Your task to perform on an android device: toggle javascript in the chrome app Image 0: 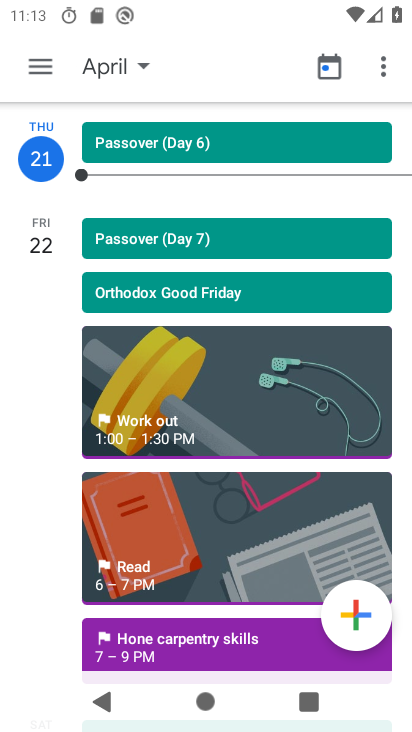
Step 0: press home button
Your task to perform on an android device: toggle javascript in the chrome app Image 1: 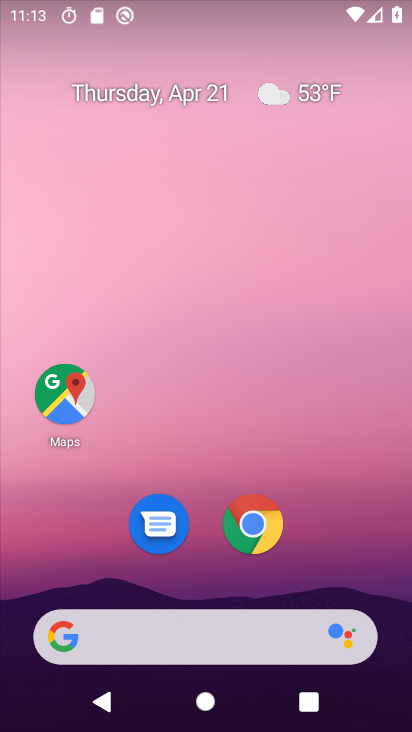
Step 1: click (256, 527)
Your task to perform on an android device: toggle javascript in the chrome app Image 2: 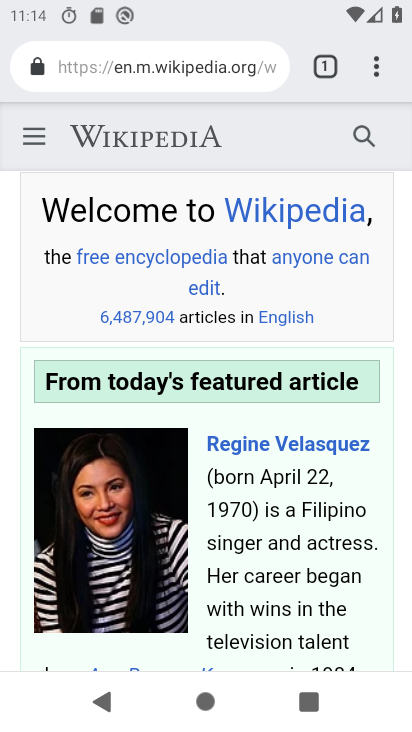
Step 2: drag from (376, 61) to (268, 520)
Your task to perform on an android device: toggle javascript in the chrome app Image 3: 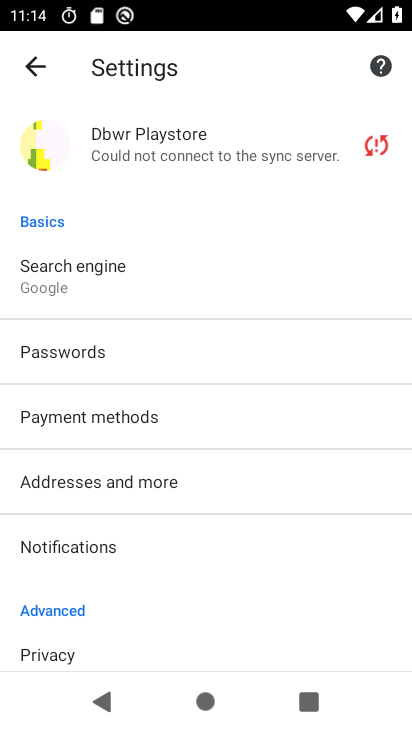
Step 3: drag from (250, 592) to (263, 258)
Your task to perform on an android device: toggle javascript in the chrome app Image 4: 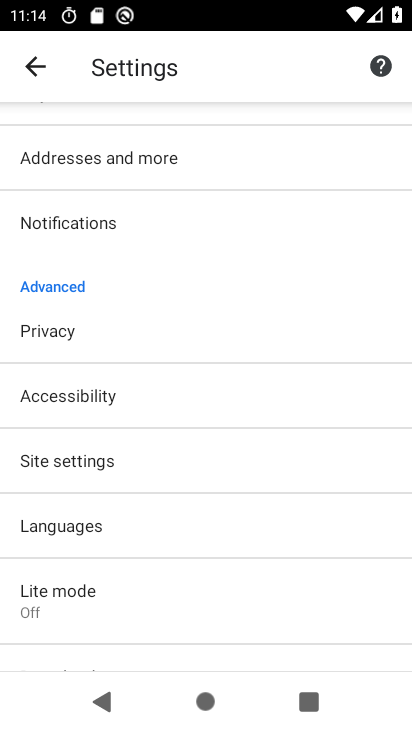
Step 4: click (241, 463)
Your task to perform on an android device: toggle javascript in the chrome app Image 5: 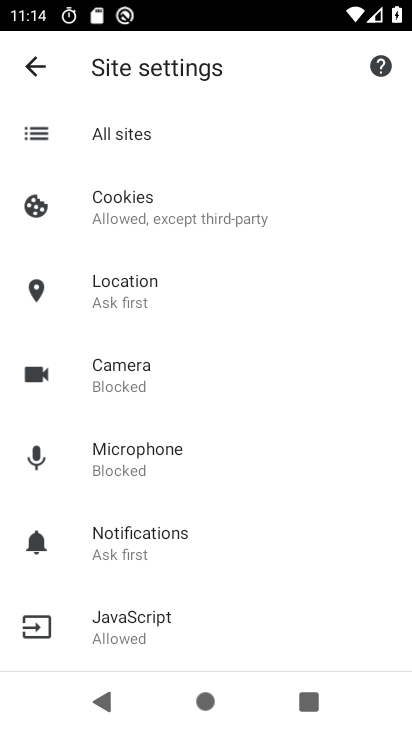
Step 5: click (246, 620)
Your task to perform on an android device: toggle javascript in the chrome app Image 6: 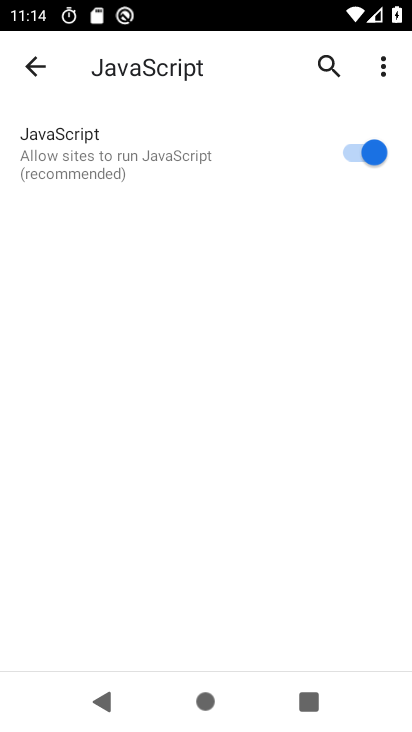
Step 6: click (355, 145)
Your task to perform on an android device: toggle javascript in the chrome app Image 7: 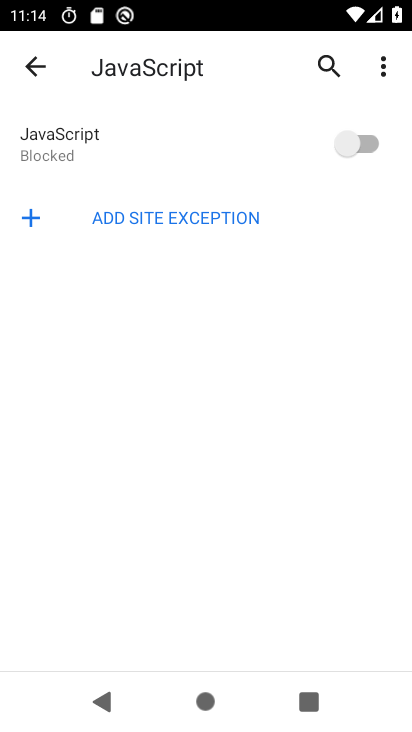
Step 7: task complete